Your task to perform on an android device: turn on data saver in the chrome app Image 0: 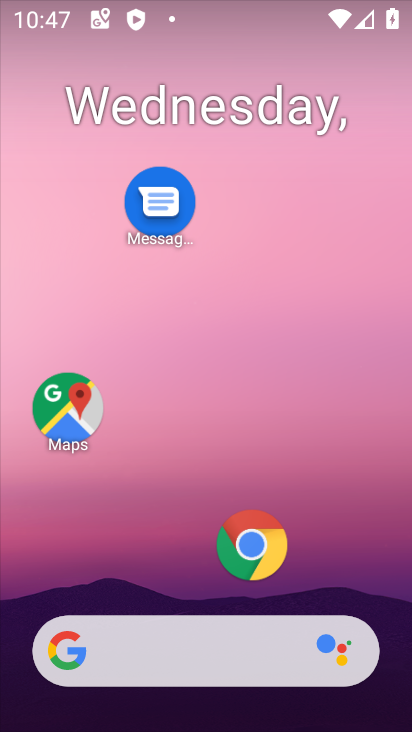
Step 0: click (237, 565)
Your task to perform on an android device: turn on data saver in the chrome app Image 1: 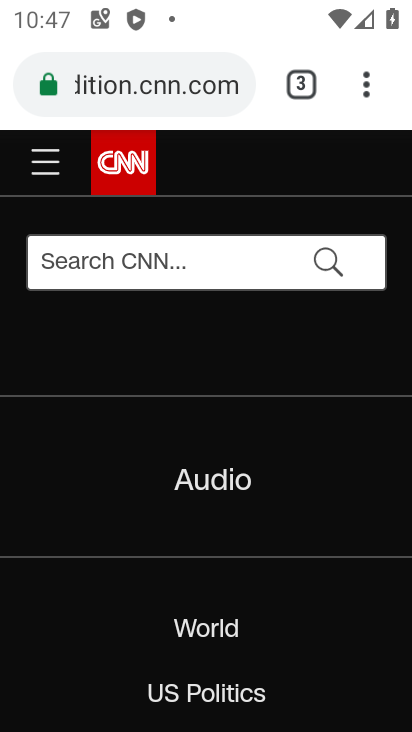
Step 1: click (363, 97)
Your task to perform on an android device: turn on data saver in the chrome app Image 2: 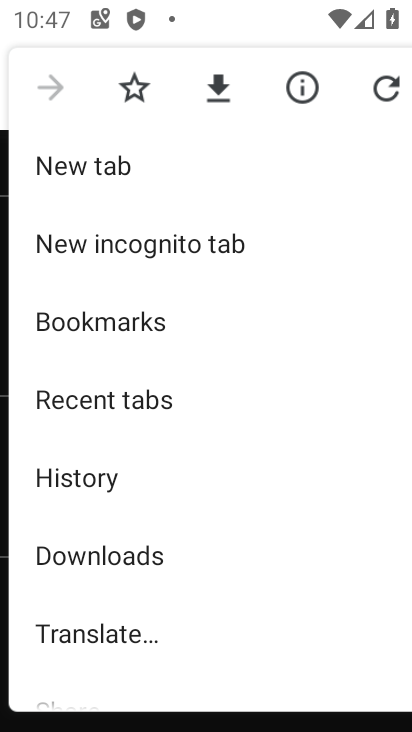
Step 2: drag from (130, 568) to (131, 338)
Your task to perform on an android device: turn on data saver in the chrome app Image 3: 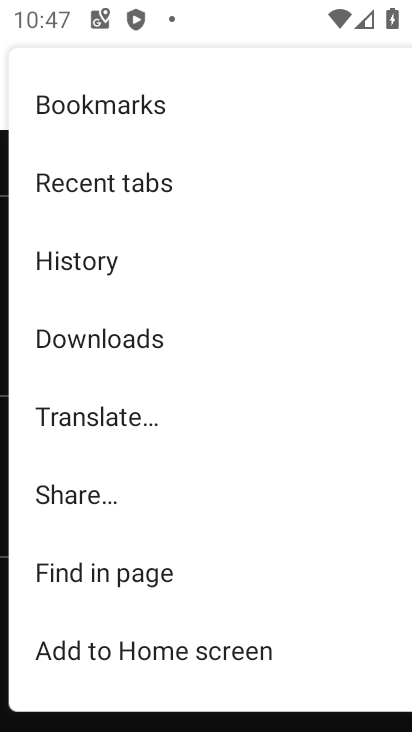
Step 3: drag from (153, 618) to (174, 350)
Your task to perform on an android device: turn on data saver in the chrome app Image 4: 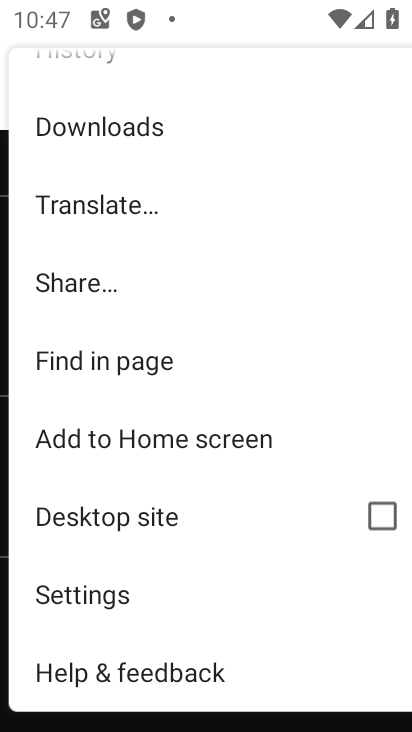
Step 4: drag from (149, 583) to (193, 353)
Your task to perform on an android device: turn on data saver in the chrome app Image 5: 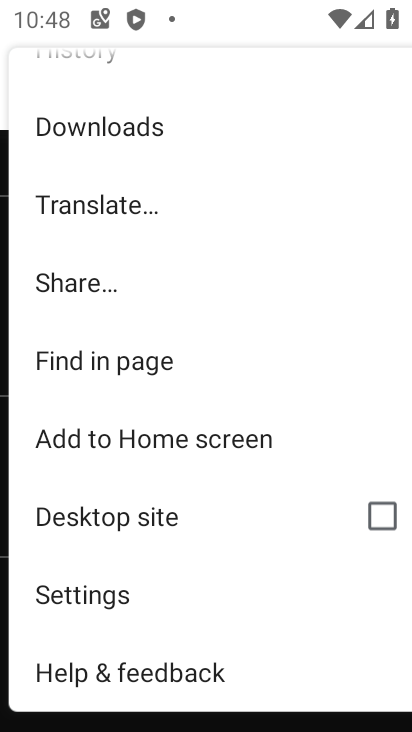
Step 5: click (121, 588)
Your task to perform on an android device: turn on data saver in the chrome app Image 6: 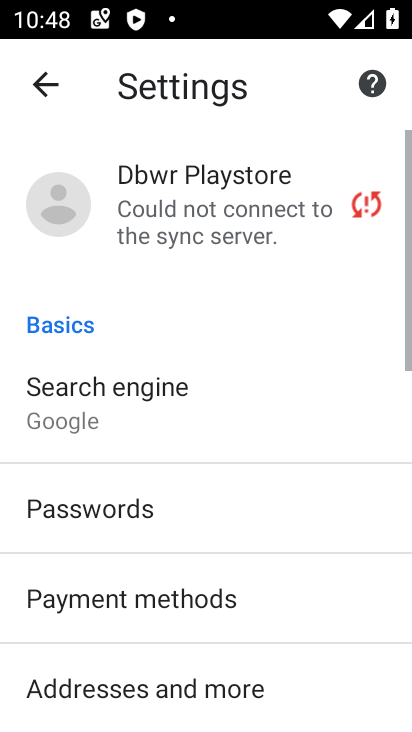
Step 6: drag from (223, 585) to (253, 281)
Your task to perform on an android device: turn on data saver in the chrome app Image 7: 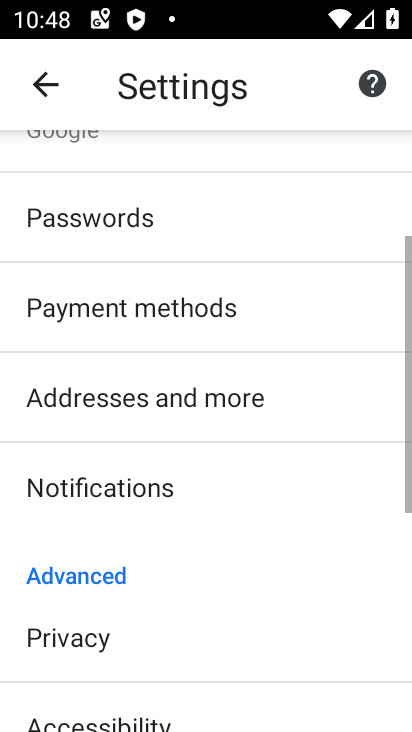
Step 7: drag from (221, 572) to (255, 293)
Your task to perform on an android device: turn on data saver in the chrome app Image 8: 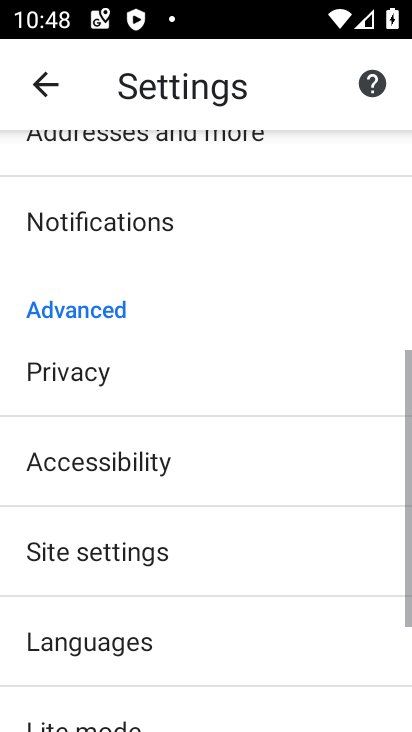
Step 8: drag from (242, 604) to (216, 392)
Your task to perform on an android device: turn on data saver in the chrome app Image 9: 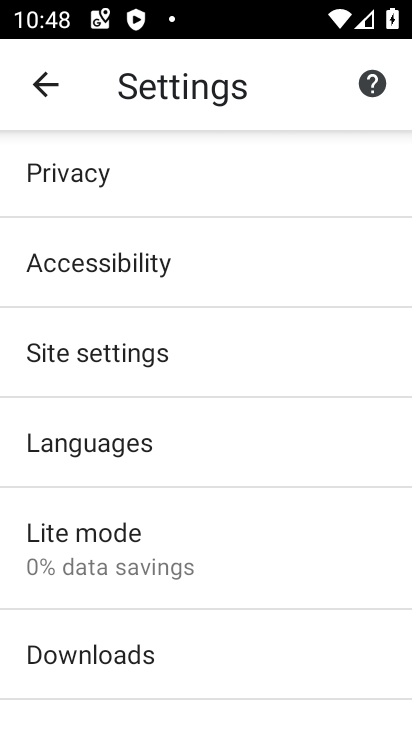
Step 9: click (142, 545)
Your task to perform on an android device: turn on data saver in the chrome app Image 10: 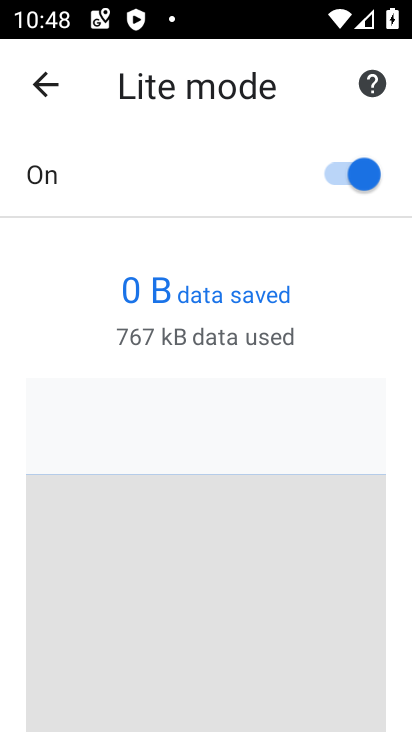
Step 10: task complete